Your task to perform on an android device: Search for Mexican restaurants on Maps Image 0: 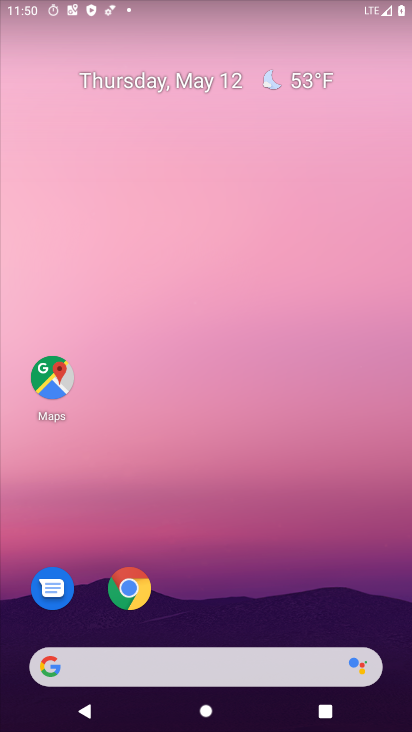
Step 0: click (48, 380)
Your task to perform on an android device: Search for Mexican restaurants on Maps Image 1: 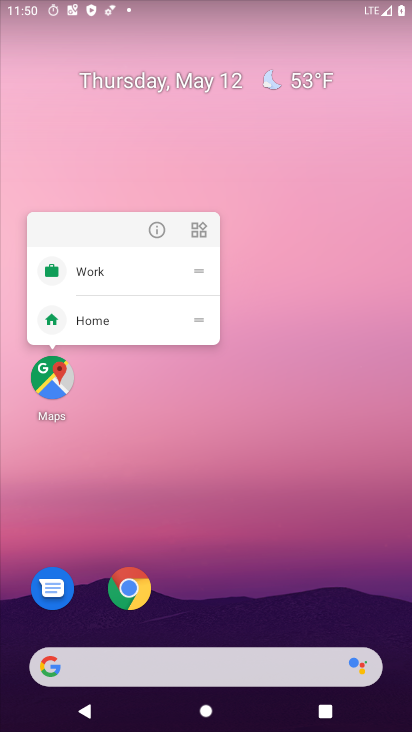
Step 1: click (50, 379)
Your task to perform on an android device: Search for Mexican restaurants on Maps Image 2: 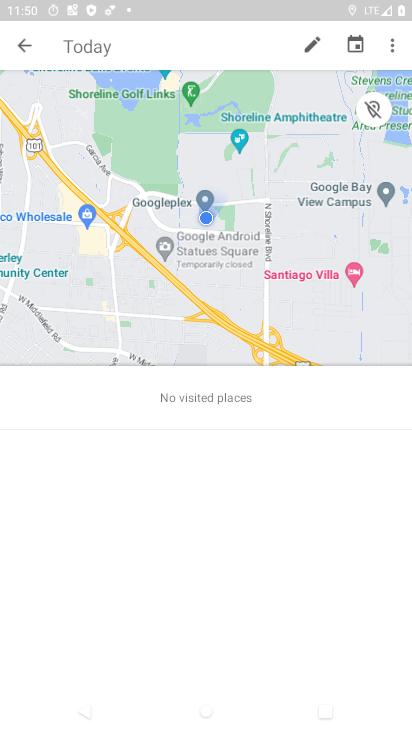
Step 2: click (20, 39)
Your task to perform on an android device: Search for Mexican restaurants on Maps Image 3: 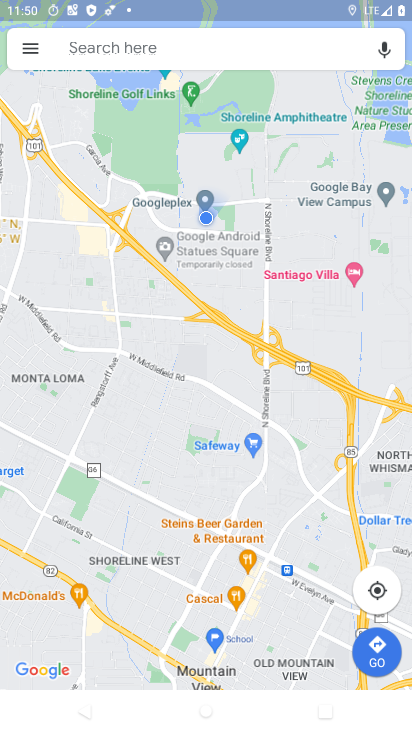
Step 3: click (163, 48)
Your task to perform on an android device: Search for Mexican restaurants on Maps Image 4: 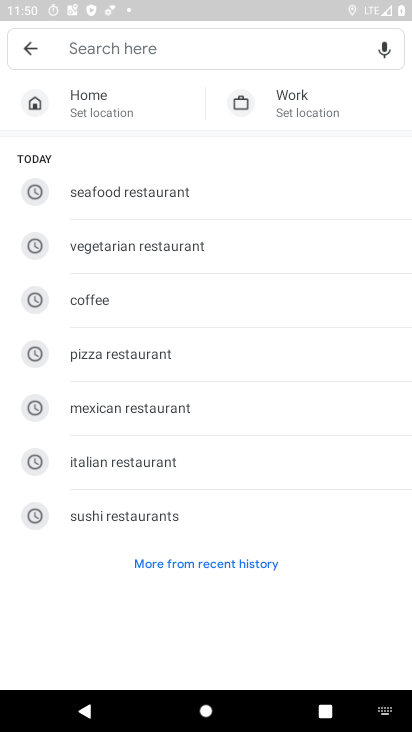
Step 4: type "Mexican restaurants"
Your task to perform on an android device: Search for Mexican restaurants on Maps Image 5: 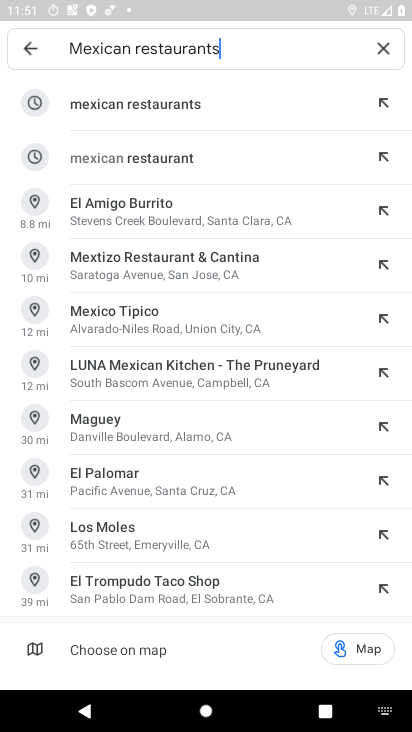
Step 5: click (210, 99)
Your task to perform on an android device: Search for Mexican restaurants on Maps Image 6: 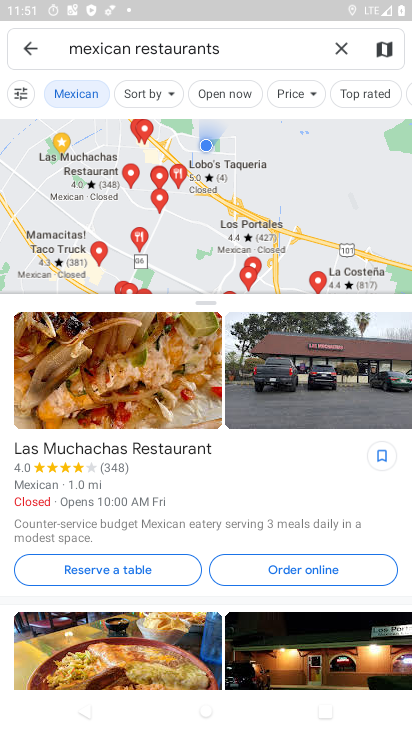
Step 6: task complete